Your task to perform on an android device: Go to display settings Image 0: 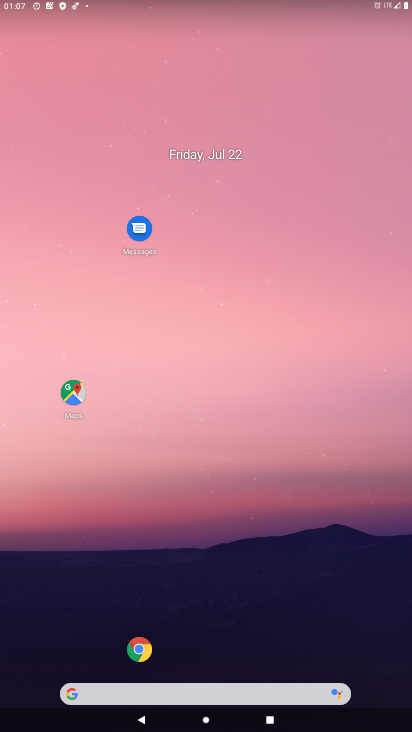
Step 0: drag from (32, 702) to (216, 90)
Your task to perform on an android device: Go to display settings Image 1: 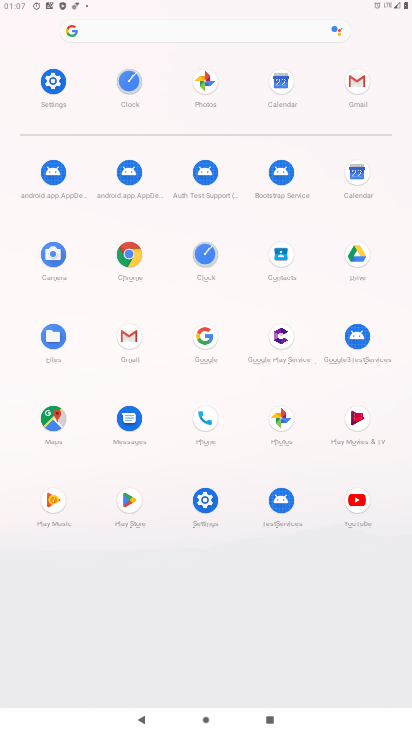
Step 1: click (200, 505)
Your task to perform on an android device: Go to display settings Image 2: 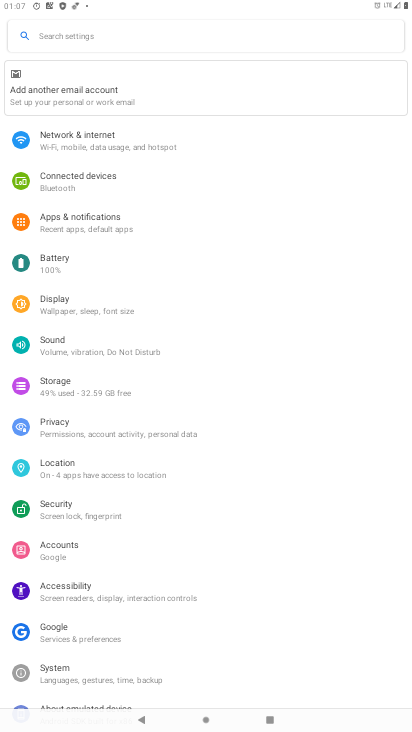
Step 2: click (102, 312)
Your task to perform on an android device: Go to display settings Image 3: 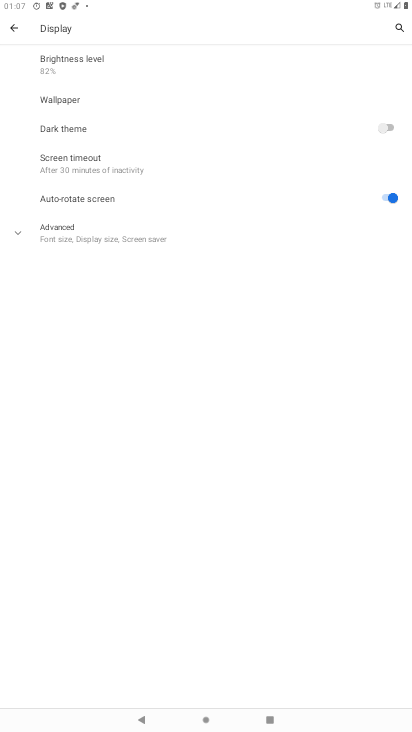
Step 3: task complete